Your task to perform on an android device: Clear the shopping cart on walmart. Search for razer naga on walmart, select the first entry, add it to the cart, then select checkout. Image 0: 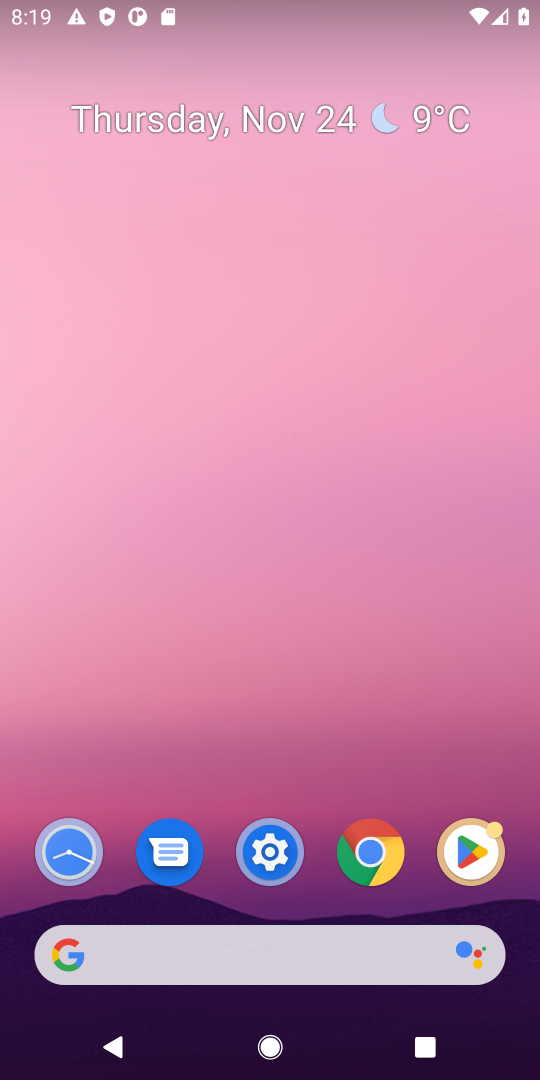
Step 0: click (286, 949)
Your task to perform on an android device: Clear the shopping cart on walmart. Search for razer naga on walmart, select the first entry, add it to the cart, then select checkout. Image 1: 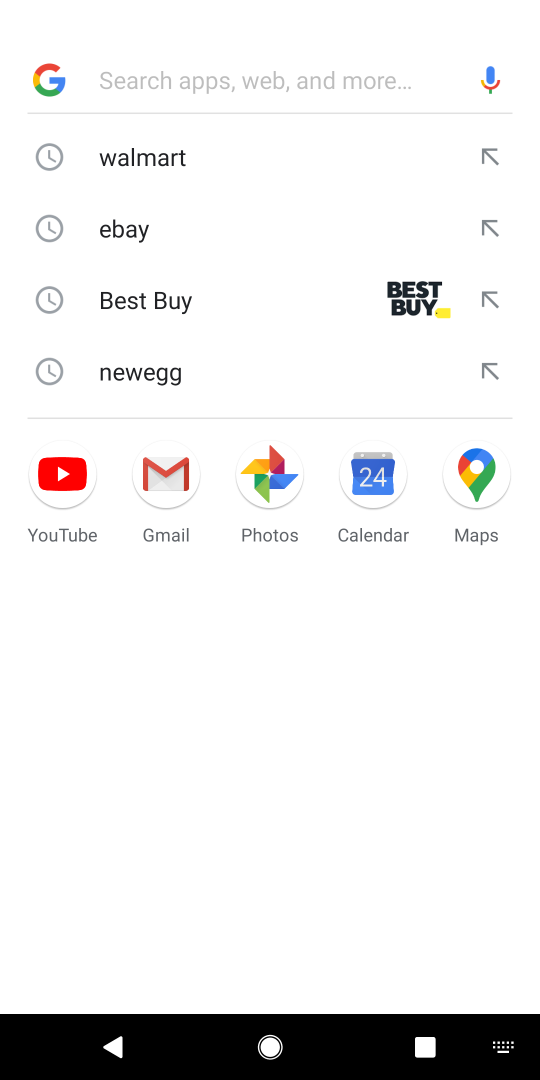
Step 1: click (179, 161)
Your task to perform on an android device: Clear the shopping cart on walmart. Search for razer naga on walmart, select the first entry, add it to the cart, then select checkout. Image 2: 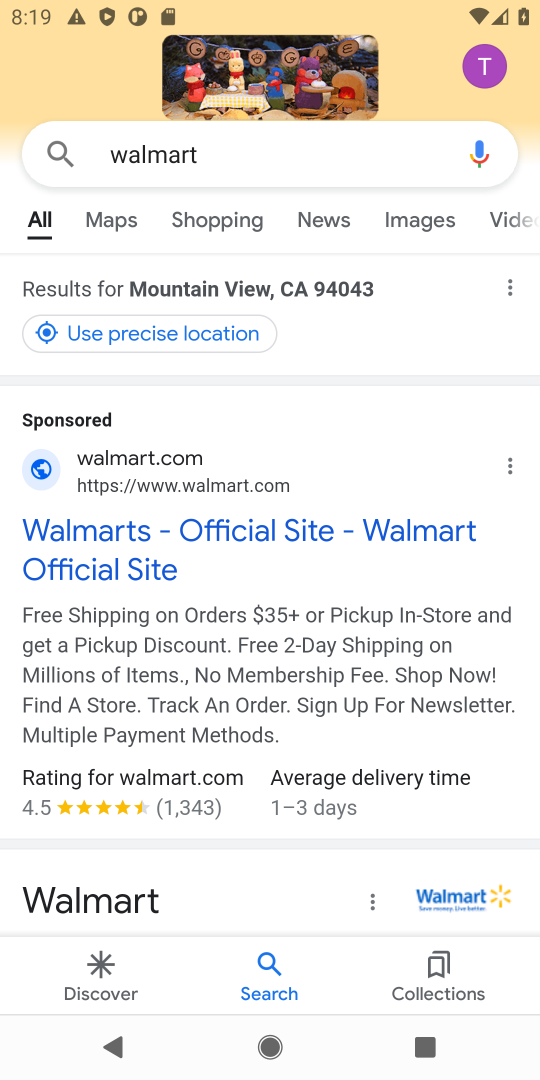
Step 2: click (118, 458)
Your task to perform on an android device: Clear the shopping cart on walmart. Search for razer naga on walmart, select the first entry, add it to the cart, then select checkout. Image 3: 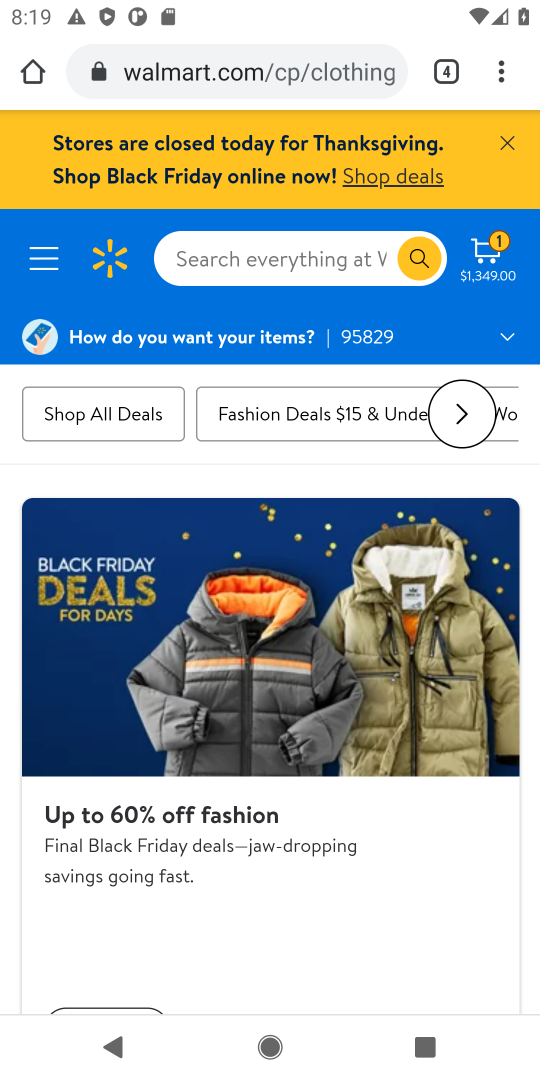
Step 3: click (488, 271)
Your task to perform on an android device: Clear the shopping cart on walmart. Search for razer naga on walmart, select the first entry, add it to the cart, then select checkout. Image 4: 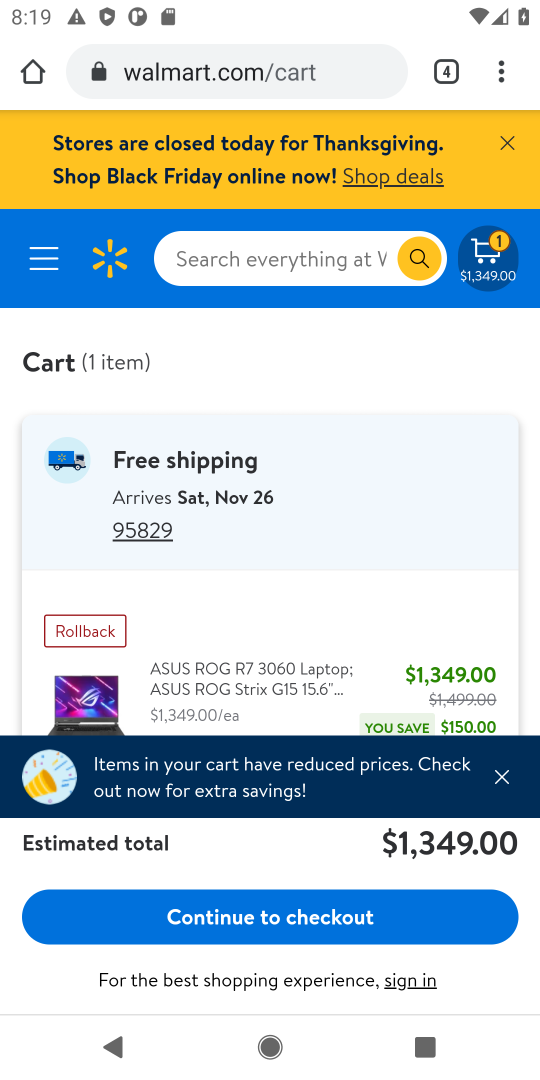
Step 4: click (500, 781)
Your task to perform on an android device: Clear the shopping cart on walmart. Search for razer naga on walmart, select the first entry, add it to the cart, then select checkout. Image 5: 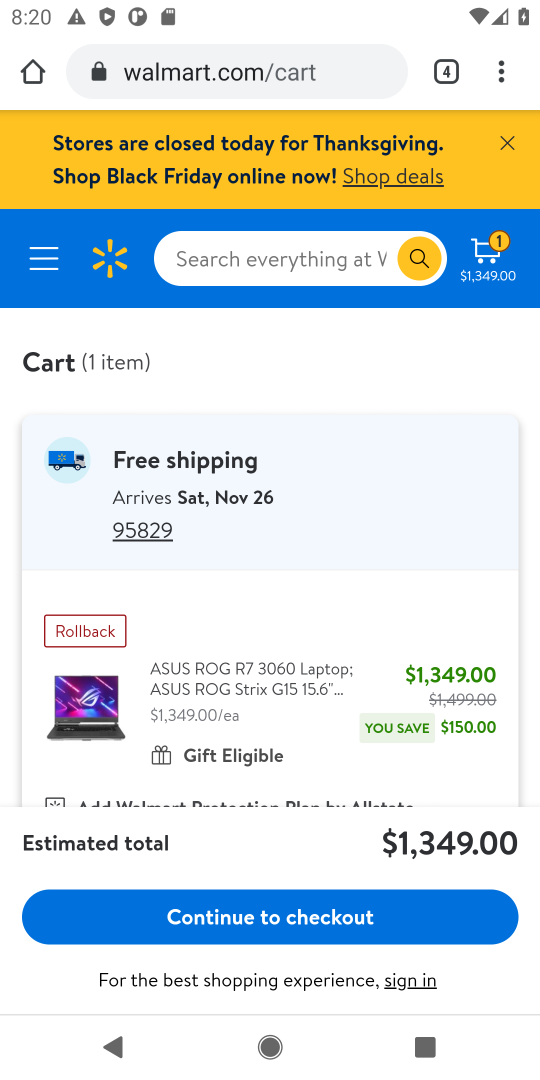
Step 5: click (294, 773)
Your task to perform on an android device: Clear the shopping cart on walmart. Search for razer naga on walmart, select the first entry, add it to the cart, then select checkout. Image 6: 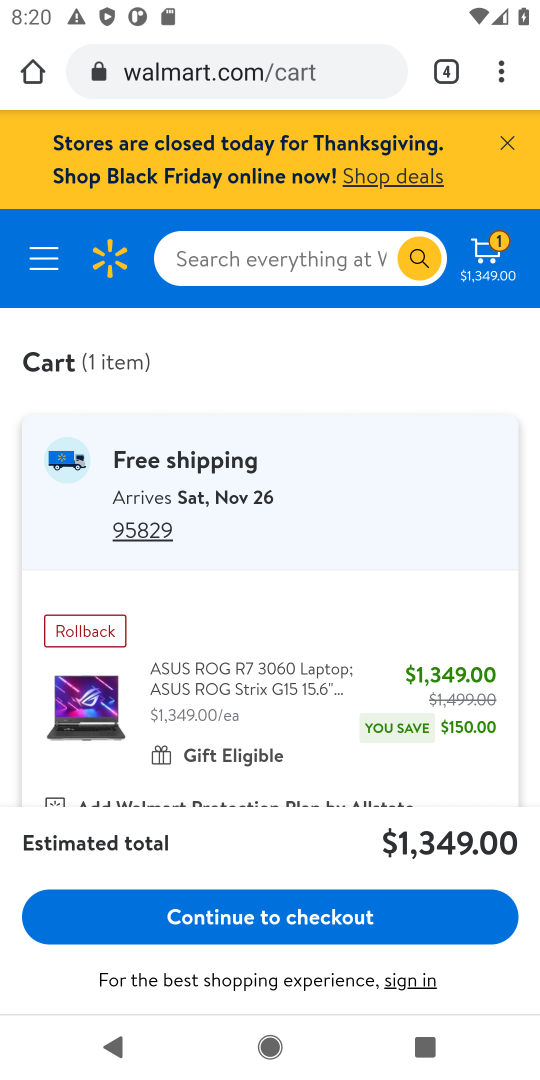
Step 6: drag from (294, 761) to (301, 538)
Your task to perform on an android device: Clear the shopping cart on walmart. Search for razer naga on walmart, select the first entry, add it to the cart, then select checkout. Image 7: 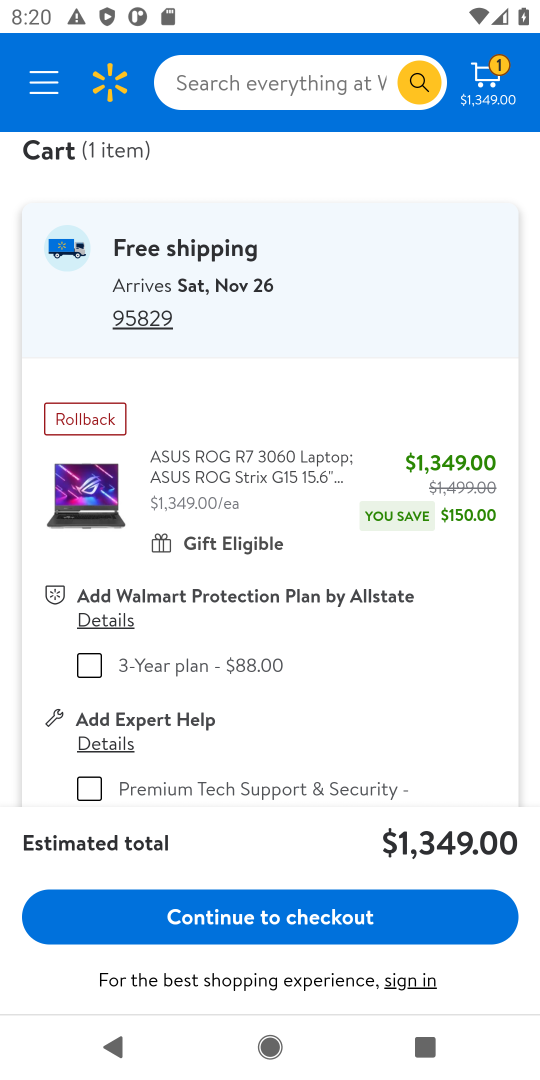
Step 7: drag from (258, 681) to (295, 452)
Your task to perform on an android device: Clear the shopping cart on walmart. Search for razer naga on walmart, select the first entry, add it to the cart, then select checkout. Image 8: 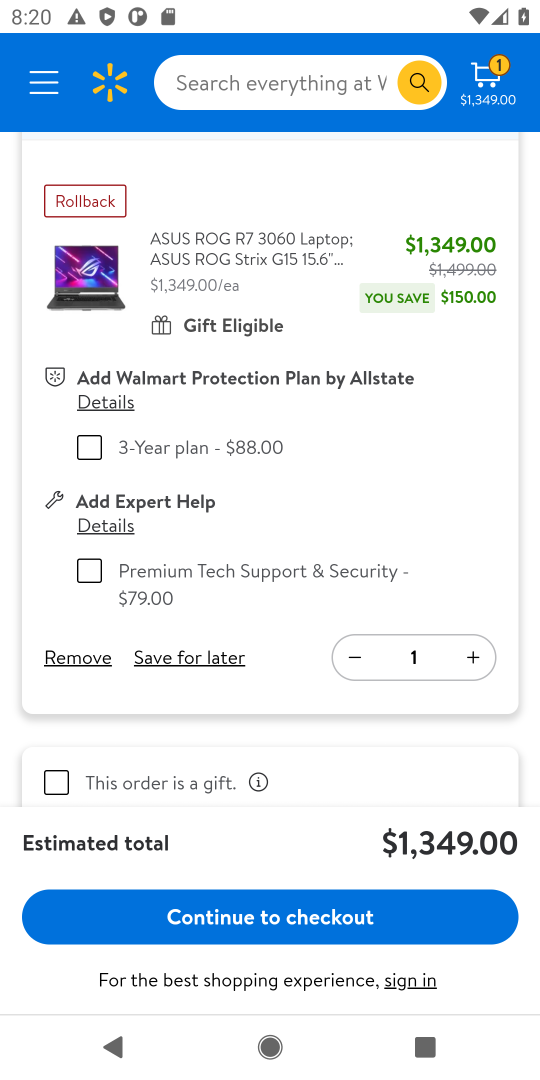
Step 8: click (80, 662)
Your task to perform on an android device: Clear the shopping cart on walmart. Search for razer naga on walmart, select the first entry, add it to the cart, then select checkout. Image 9: 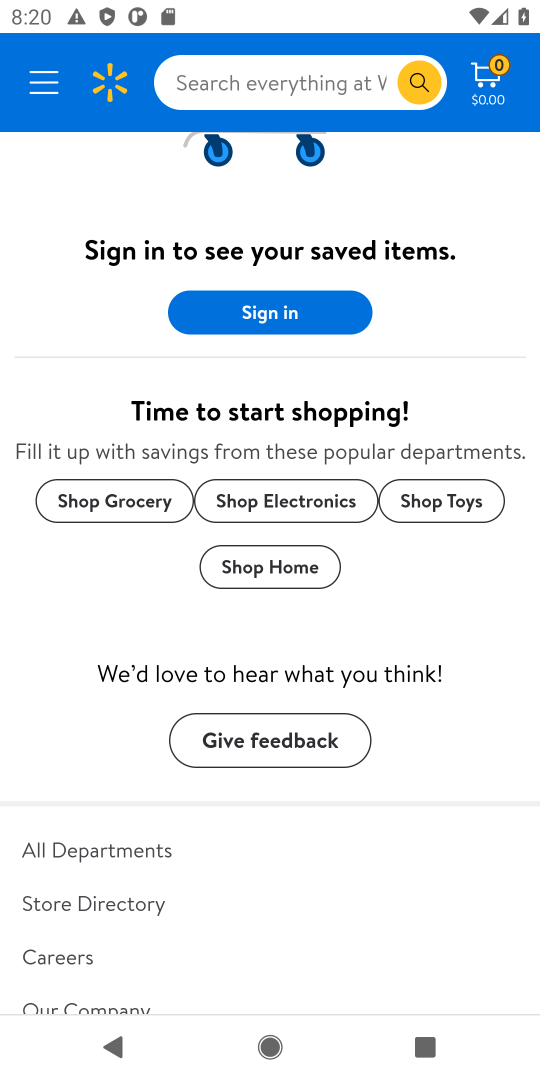
Step 9: click (284, 83)
Your task to perform on an android device: Clear the shopping cart on walmart. Search for razer naga on walmart, select the first entry, add it to the cart, then select checkout. Image 10: 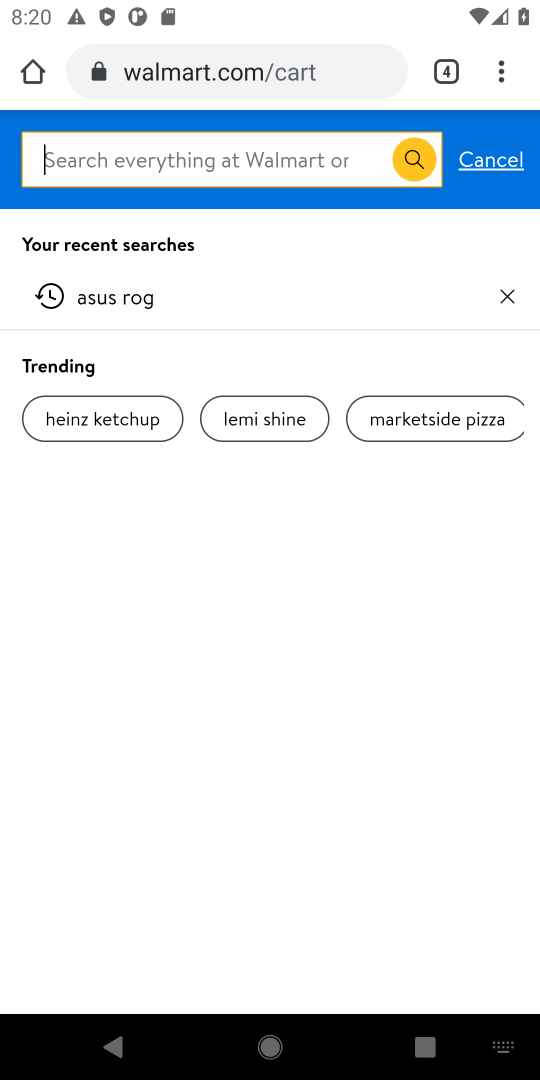
Step 10: type "razer naga "
Your task to perform on an android device: Clear the shopping cart on walmart. Search for razer naga on walmart, select the first entry, add it to the cart, then select checkout. Image 11: 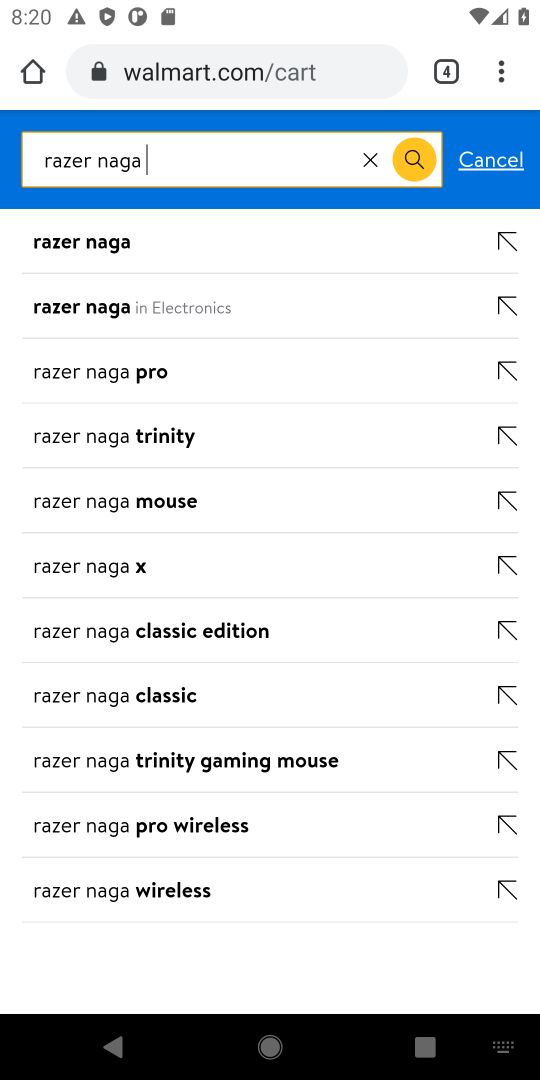
Step 11: click (94, 254)
Your task to perform on an android device: Clear the shopping cart on walmart. Search for razer naga on walmart, select the first entry, add it to the cart, then select checkout. Image 12: 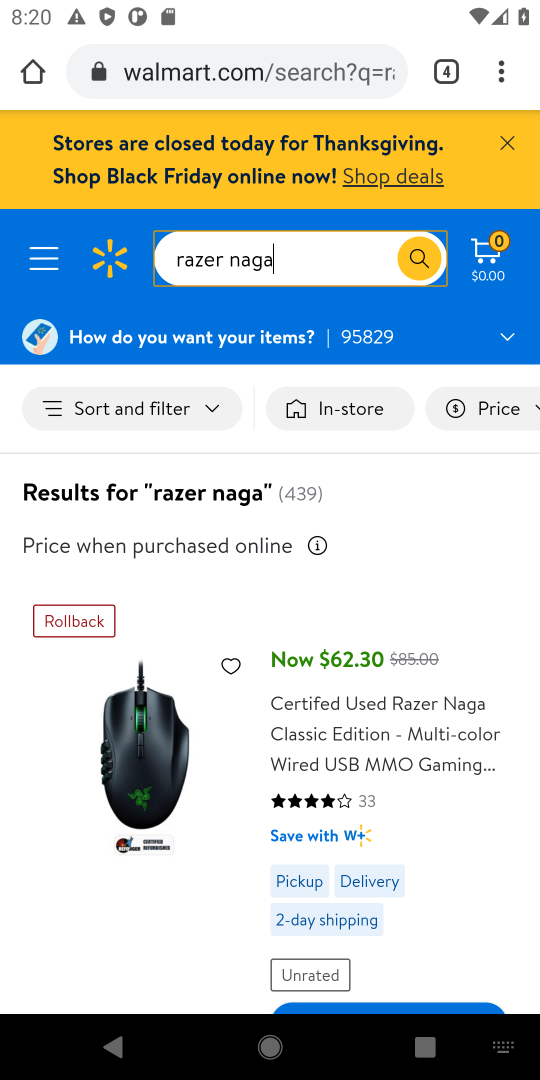
Step 12: drag from (386, 926) to (390, 692)
Your task to perform on an android device: Clear the shopping cart on walmart. Search for razer naga on walmart, select the first entry, add it to the cart, then select checkout. Image 13: 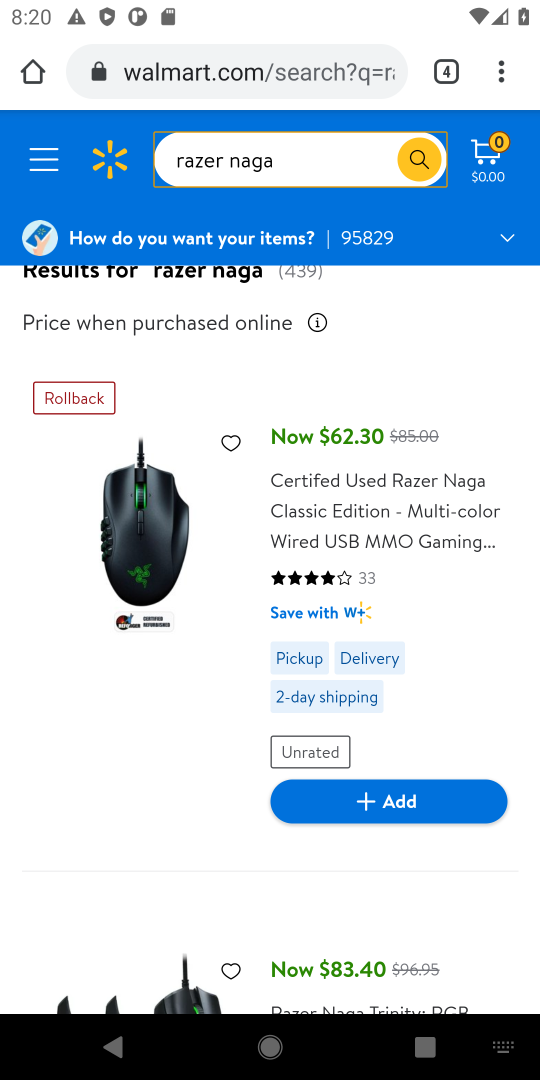
Step 13: click (367, 801)
Your task to perform on an android device: Clear the shopping cart on walmart. Search for razer naga on walmart, select the first entry, add it to the cart, then select checkout. Image 14: 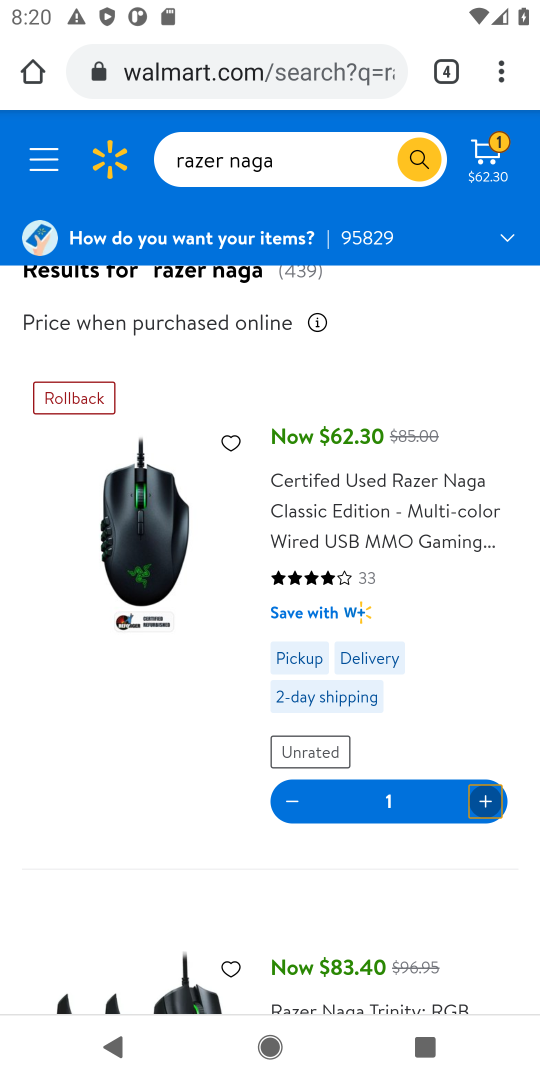
Step 14: click (489, 166)
Your task to perform on an android device: Clear the shopping cart on walmart. Search for razer naga on walmart, select the first entry, add it to the cart, then select checkout. Image 15: 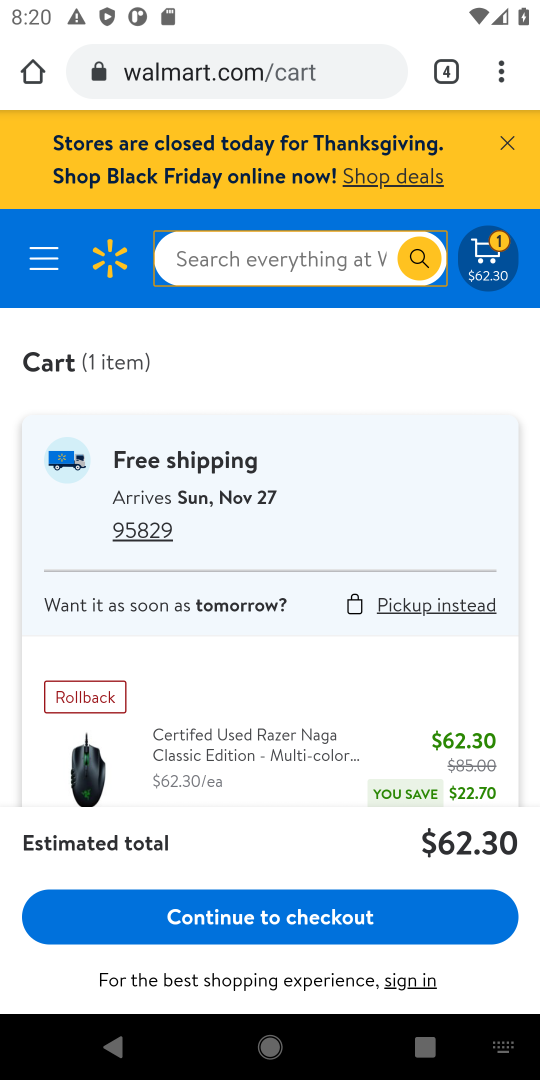
Step 15: click (256, 924)
Your task to perform on an android device: Clear the shopping cart on walmart. Search for razer naga on walmart, select the first entry, add it to the cart, then select checkout. Image 16: 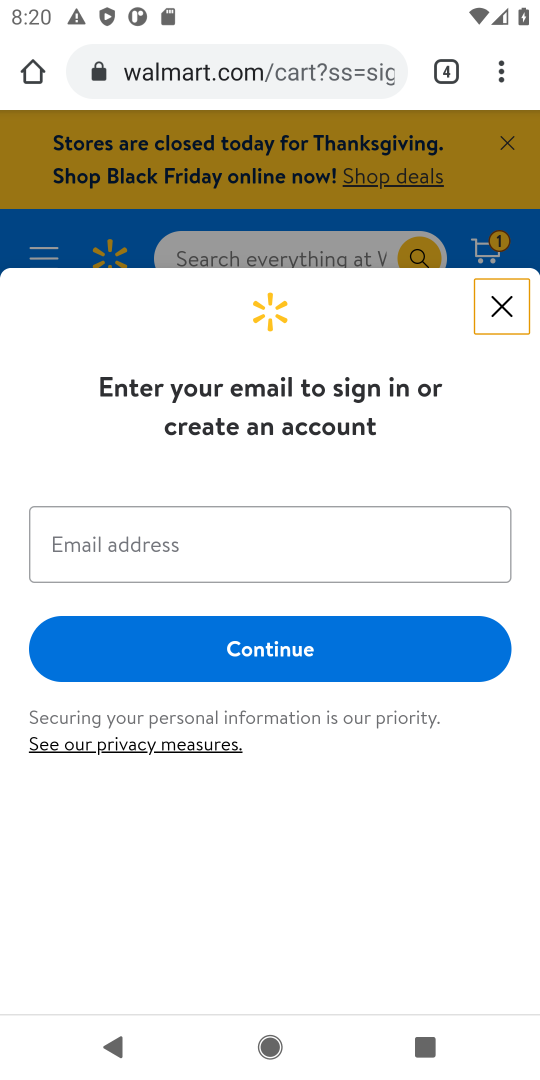
Step 16: task complete